Your task to perform on an android device: move a message to another label in the gmail app Image 0: 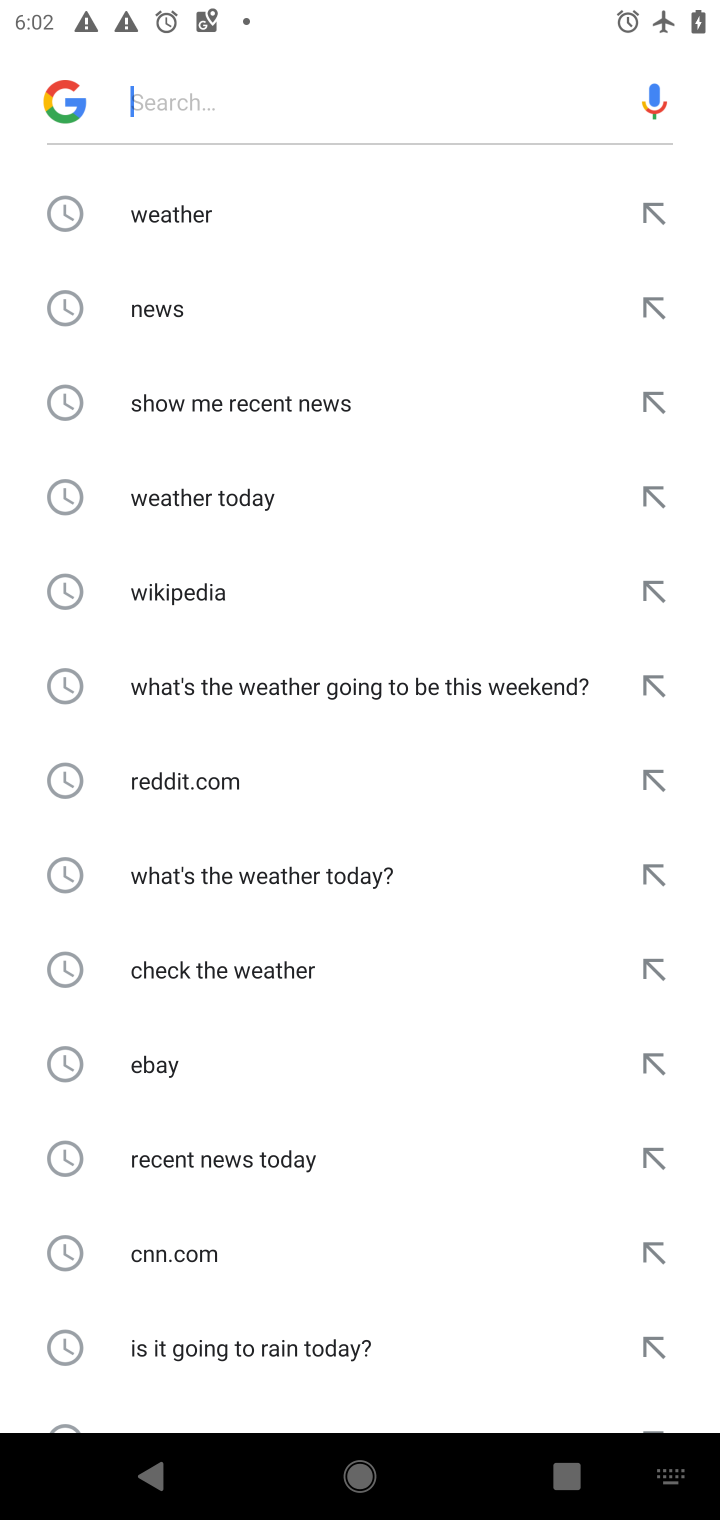
Step 0: press home button
Your task to perform on an android device: move a message to another label in the gmail app Image 1: 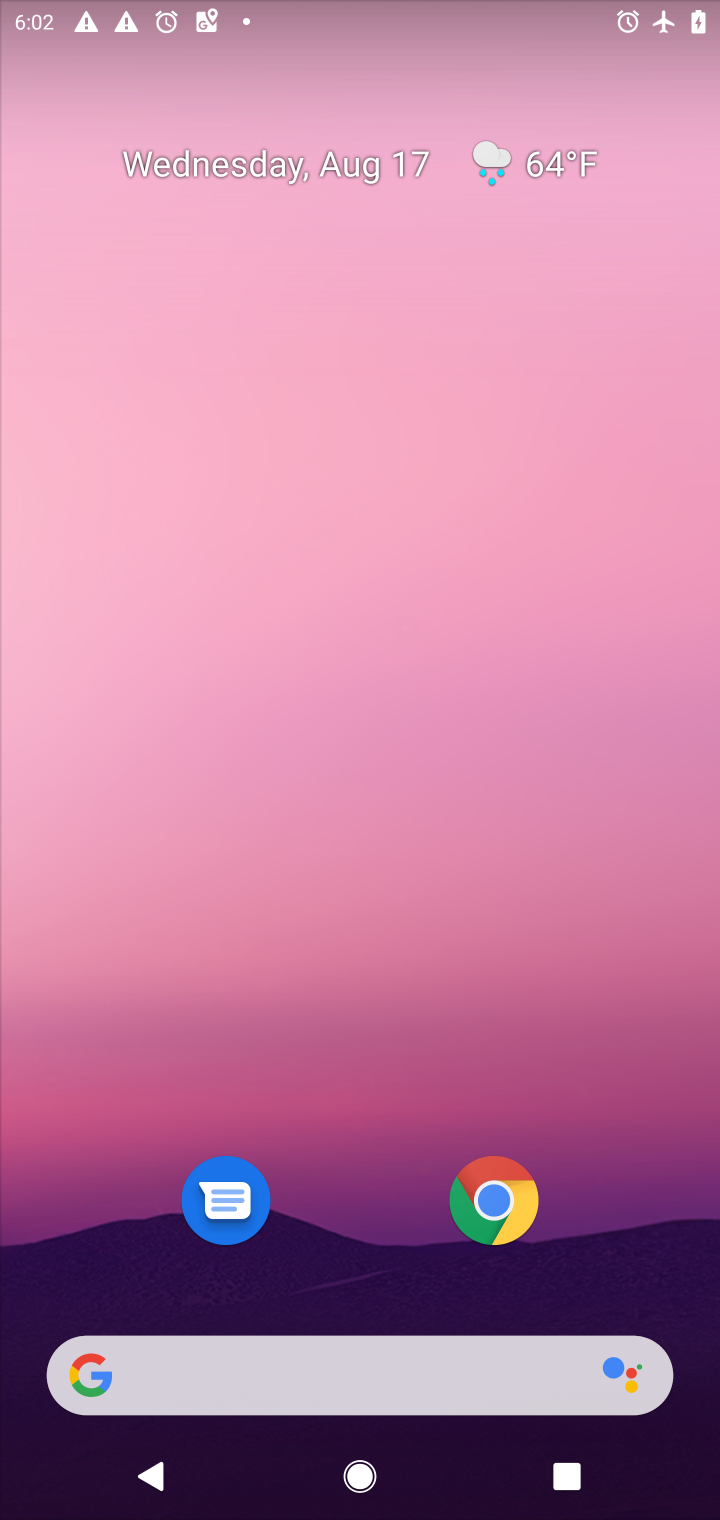
Step 1: drag from (403, 1067) to (387, 289)
Your task to perform on an android device: move a message to another label in the gmail app Image 2: 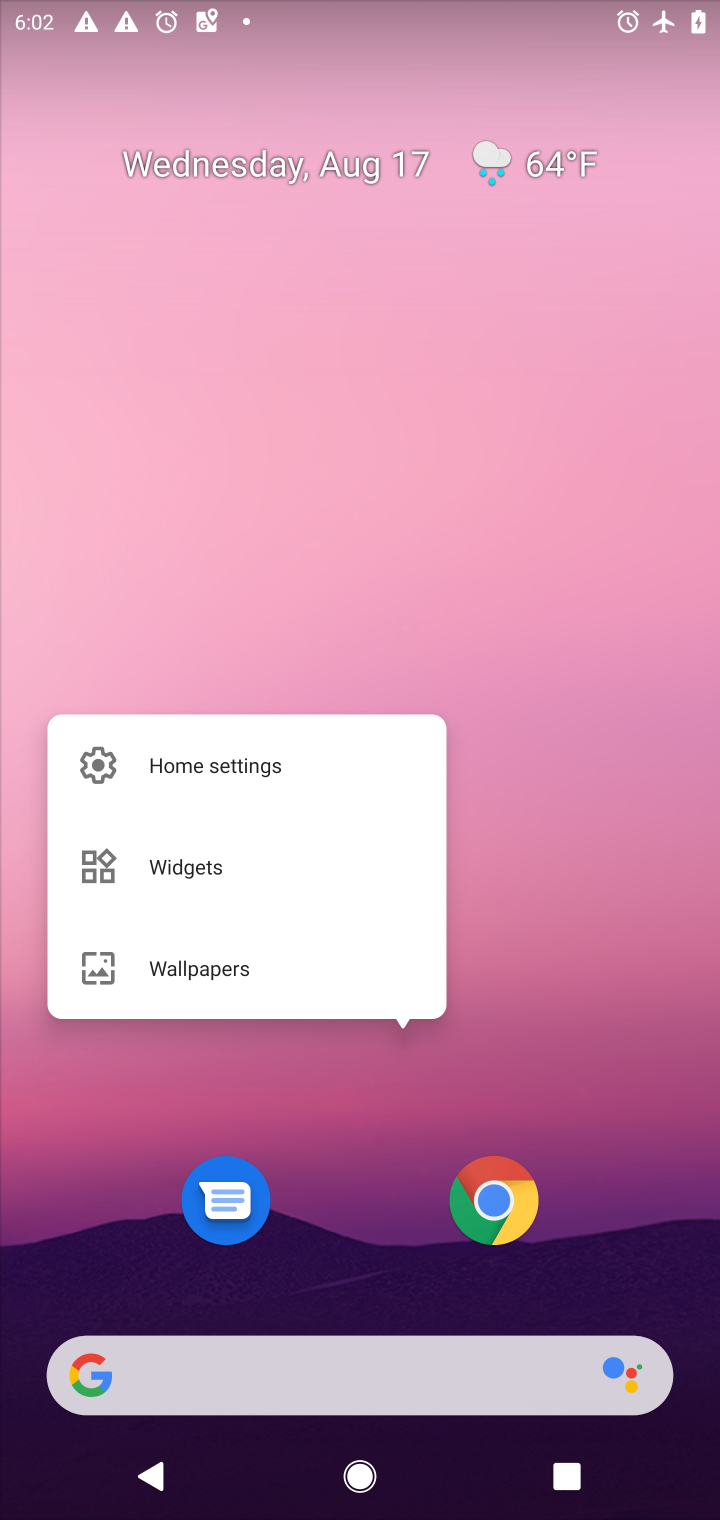
Step 2: click (370, 536)
Your task to perform on an android device: move a message to another label in the gmail app Image 3: 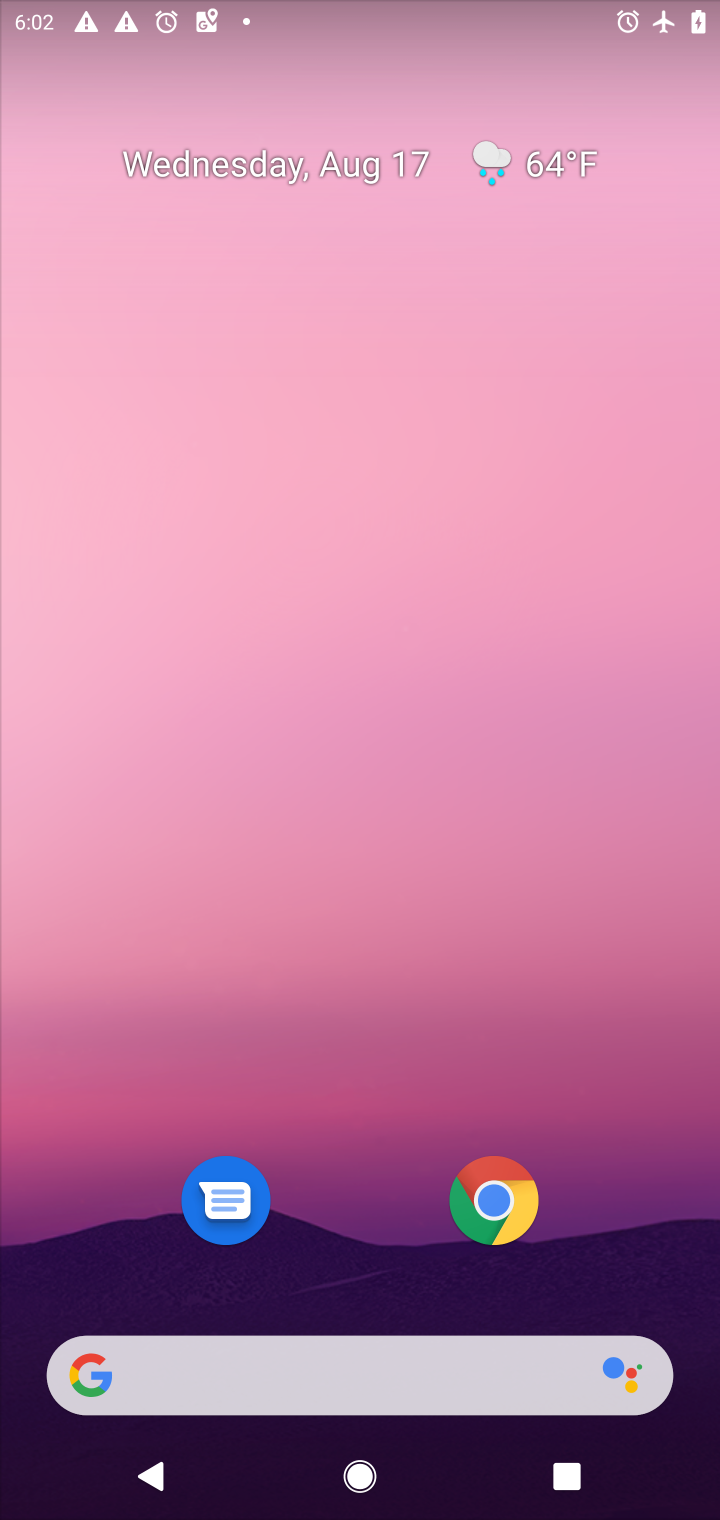
Step 3: drag from (373, 1091) to (373, 81)
Your task to perform on an android device: move a message to another label in the gmail app Image 4: 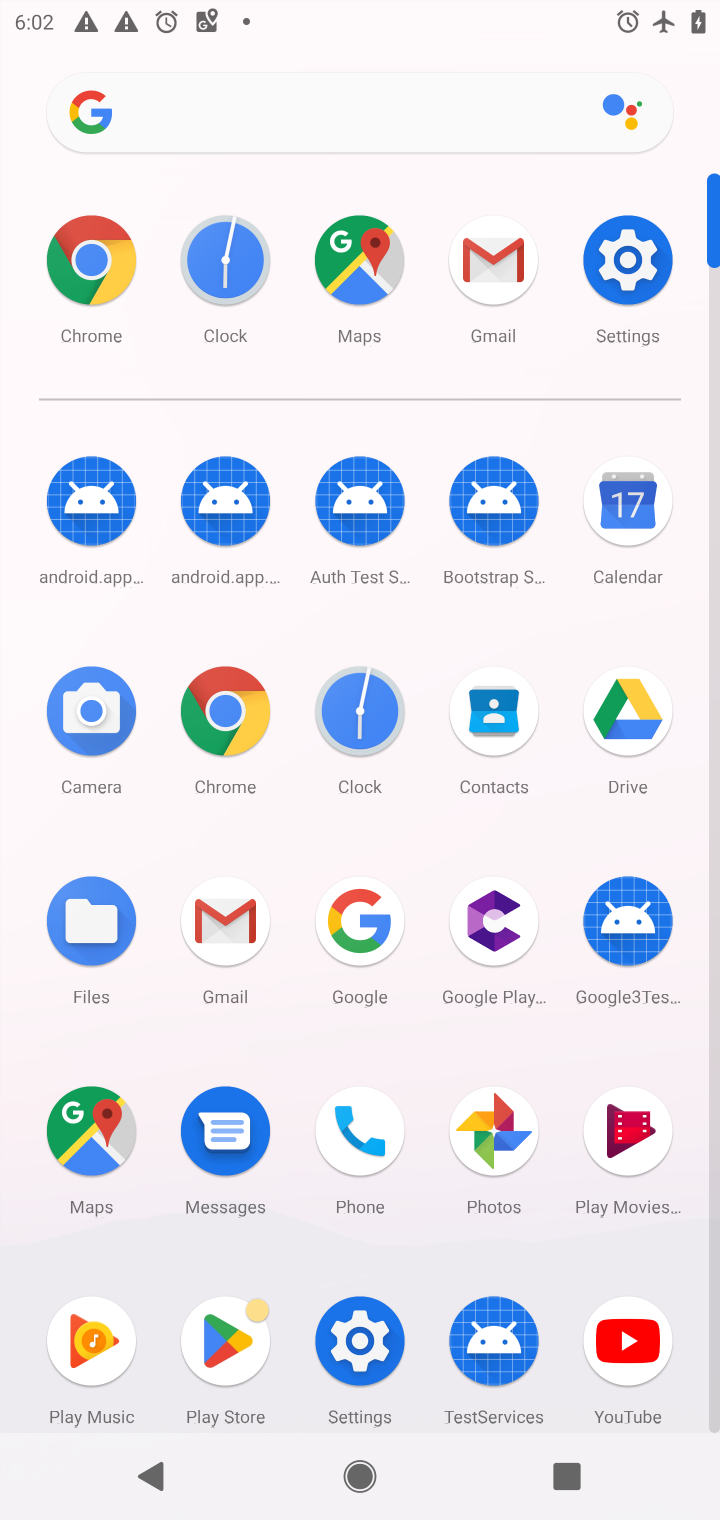
Step 4: click (232, 922)
Your task to perform on an android device: move a message to another label in the gmail app Image 5: 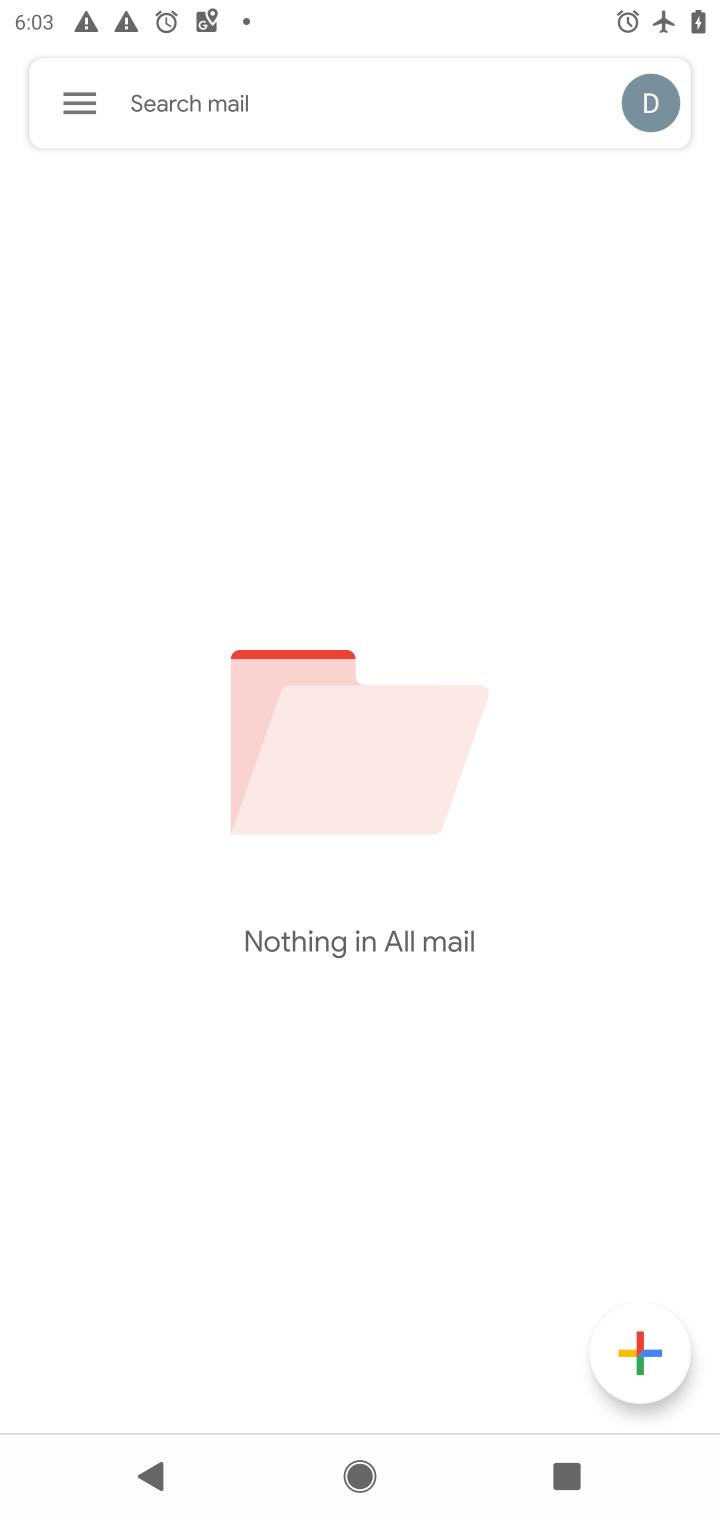
Step 5: click (57, 100)
Your task to perform on an android device: move a message to another label in the gmail app Image 6: 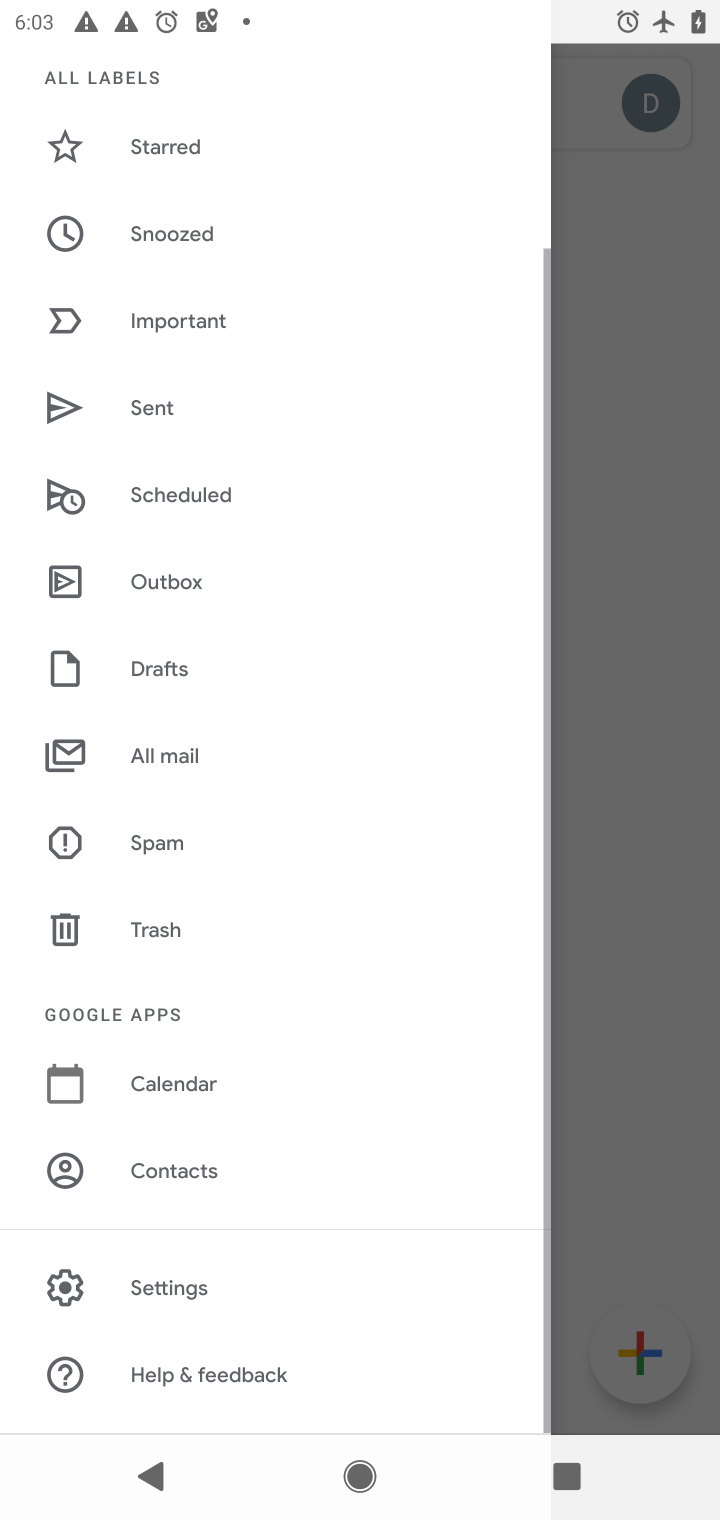
Step 6: drag from (191, 216) to (185, 1009)
Your task to perform on an android device: move a message to another label in the gmail app Image 7: 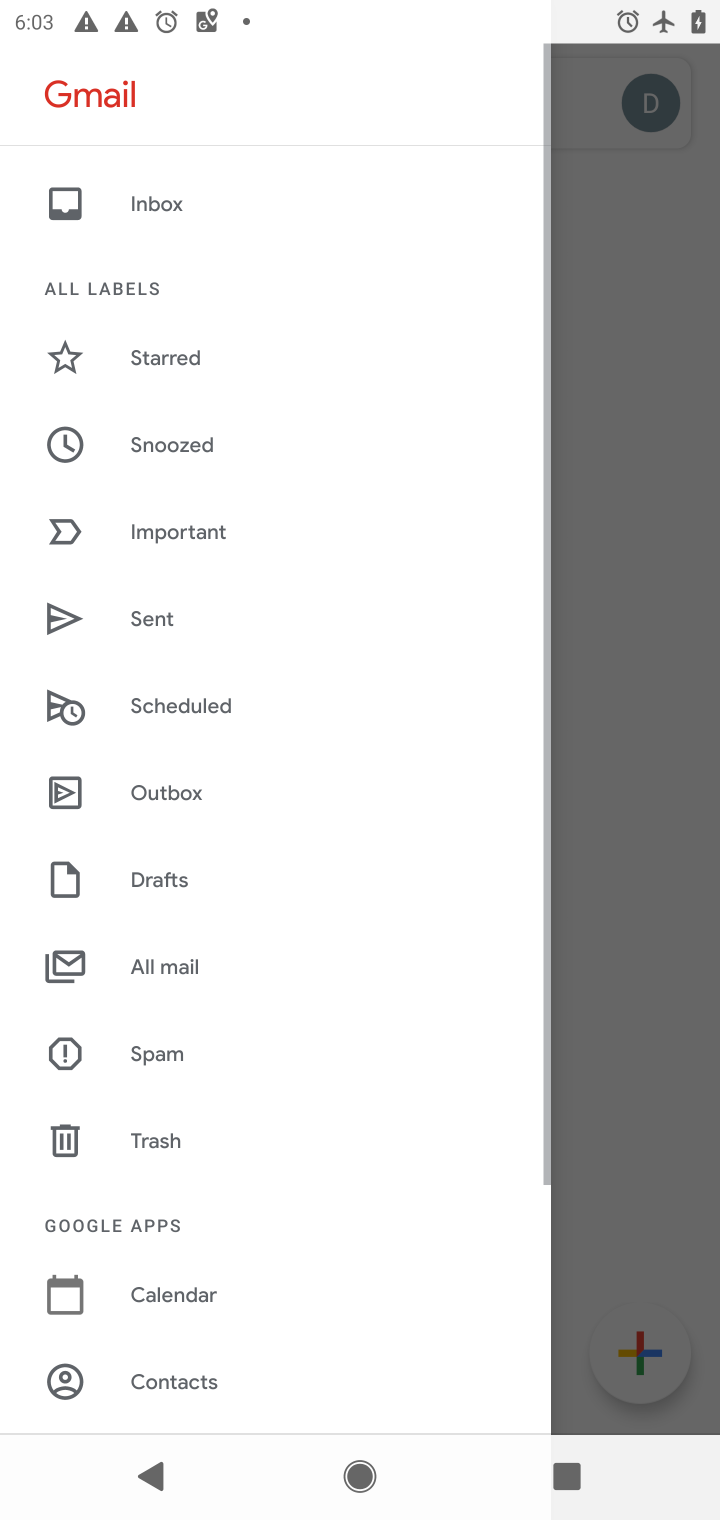
Step 7: click (151, 197)
Your task to perform on an android device: move a message to another label in the gmail app Image 8: 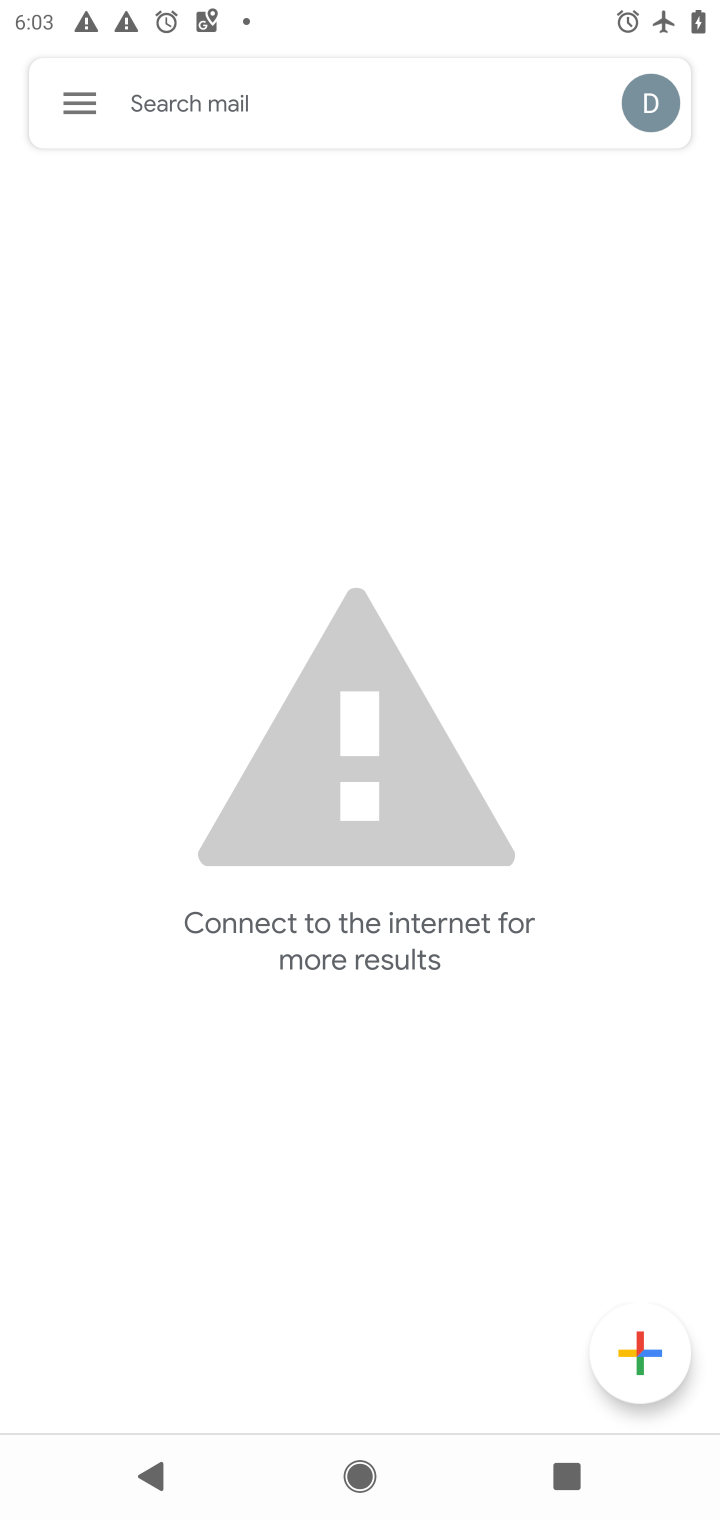
Step 8: task complete